Your task to perform on an android device: change the clock style Image 0: 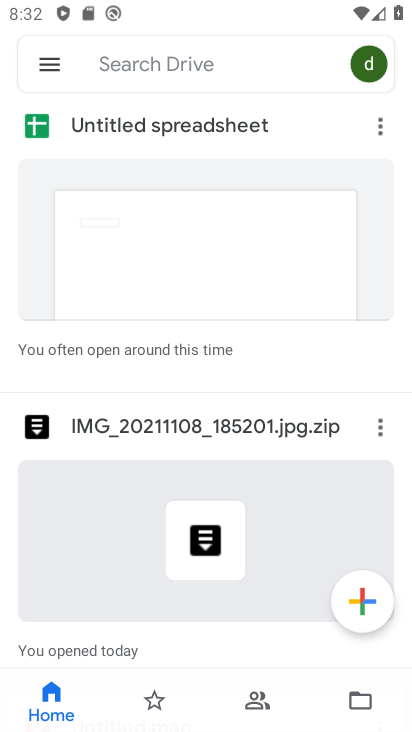
Step 0: press home button
Your task to perform on an android device: change the clock style Image 1: 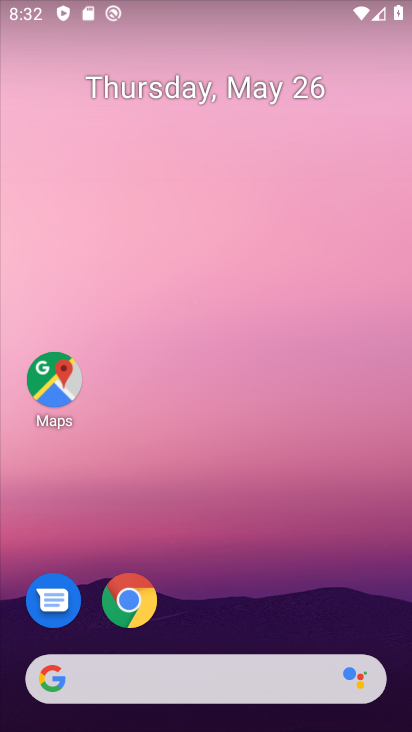
Step 1: drag from (209, 616) to (190, 236)
Your task to perform on an android device: change the clock style Image 2: 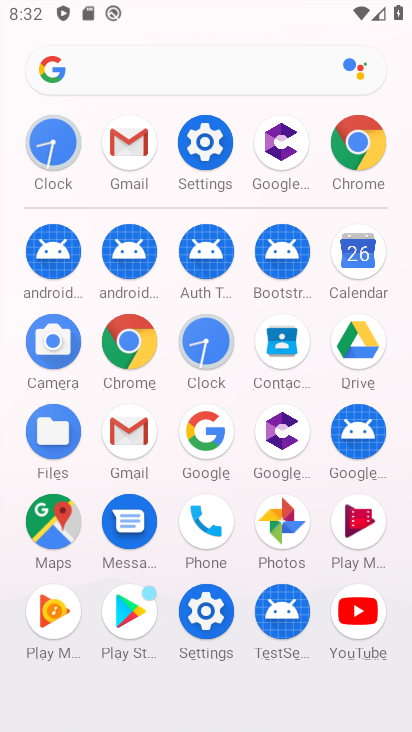
Step 2: click (225, 342)
Your task to perform on an android device: change the clock style Image 3: 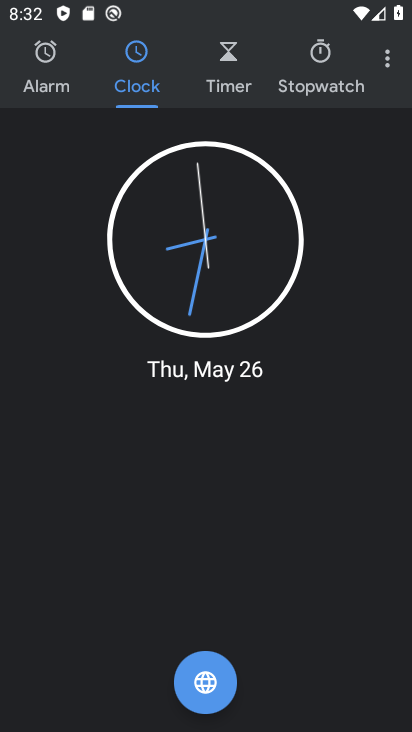
Step 3: click (394, 64)
Your task to perform on an android device: change the clock style Image 4: 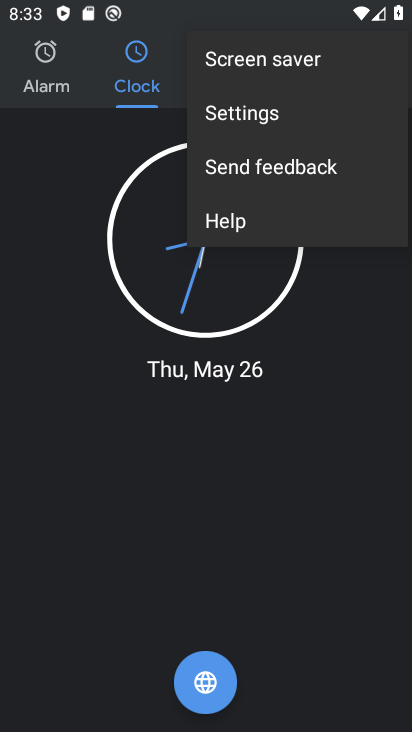
Step 4: click (292, 116)
Your task to perform on an android device: change the clock style Image 5: 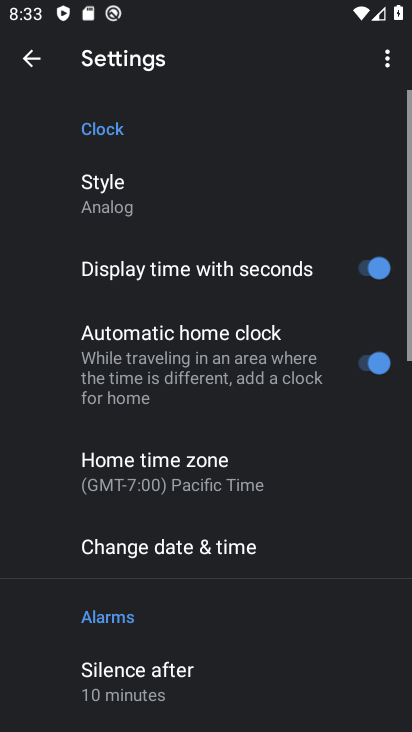
Step 5: click (129, 195)
Your task to perform on an android device: change the clock style Image 6: 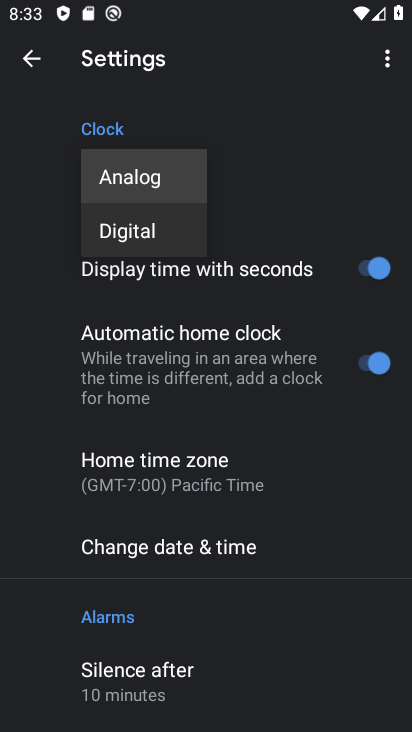
Step 6: click (156, 227)
Your task to perform on an android device: change the clock style Image 7: 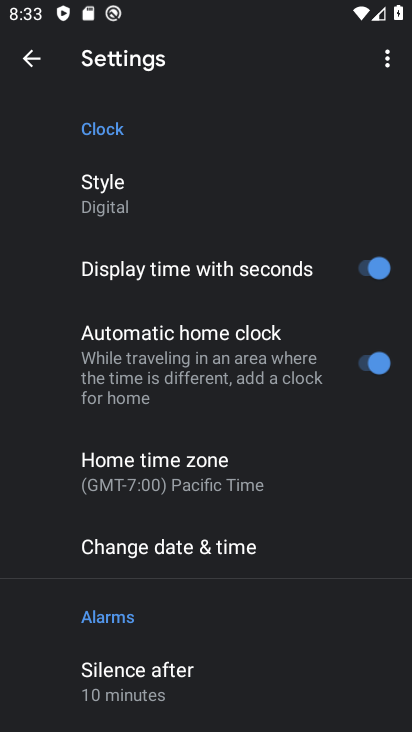
Step 7: task complete